Your task to perform on an android device: Open Yahoo.com Image 0: 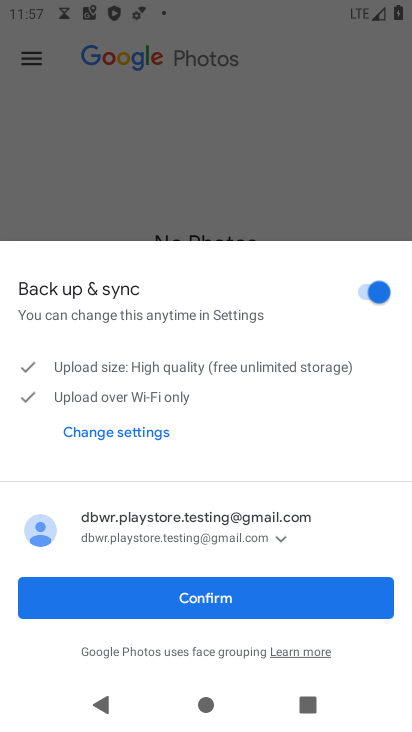
Step 0: press home button
Your task to perform on an android device: Open Yahoo.com Image 1: 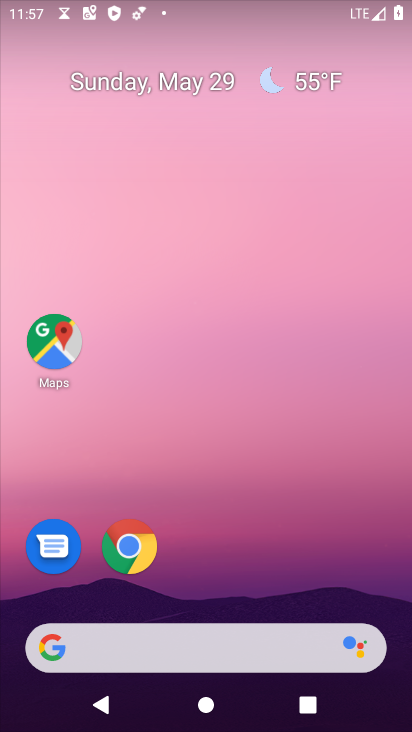
Step 1: click (127, 554)
Your task to perform on an android device: Open Yahoo.com Image 2: 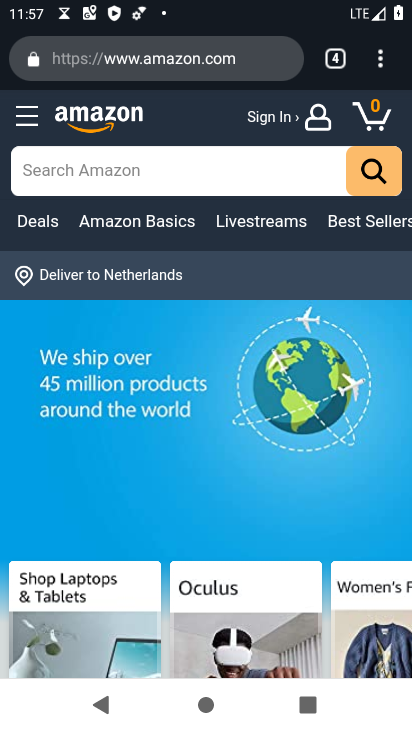
Step 2: drag from (380, 65) to (169, 130)
Your task to perform on an android device: Open Yahoo.com Image 3: 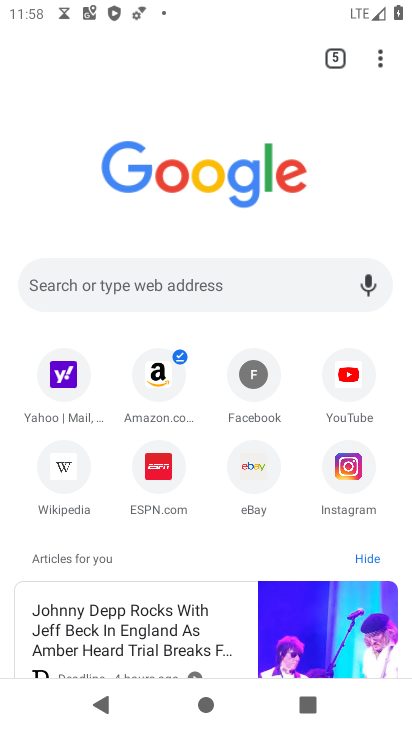
Step 3: click (59, 384)
Your task to perform on an android device: Open Yahoo.com Image 4: 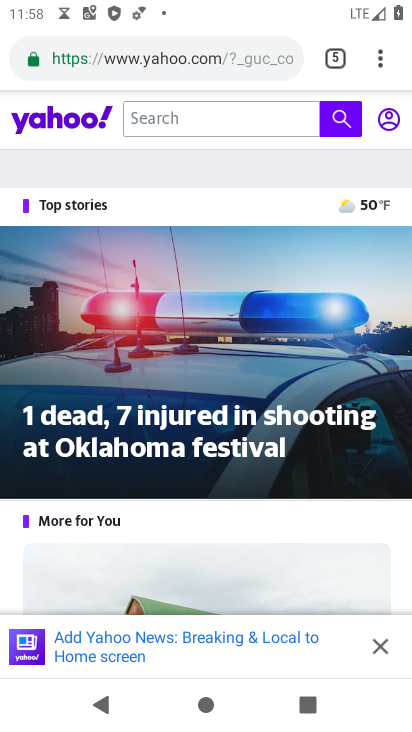
Step 4: task complete